Your task to perform on an android device: open a new tab in the chrome app Image 0: 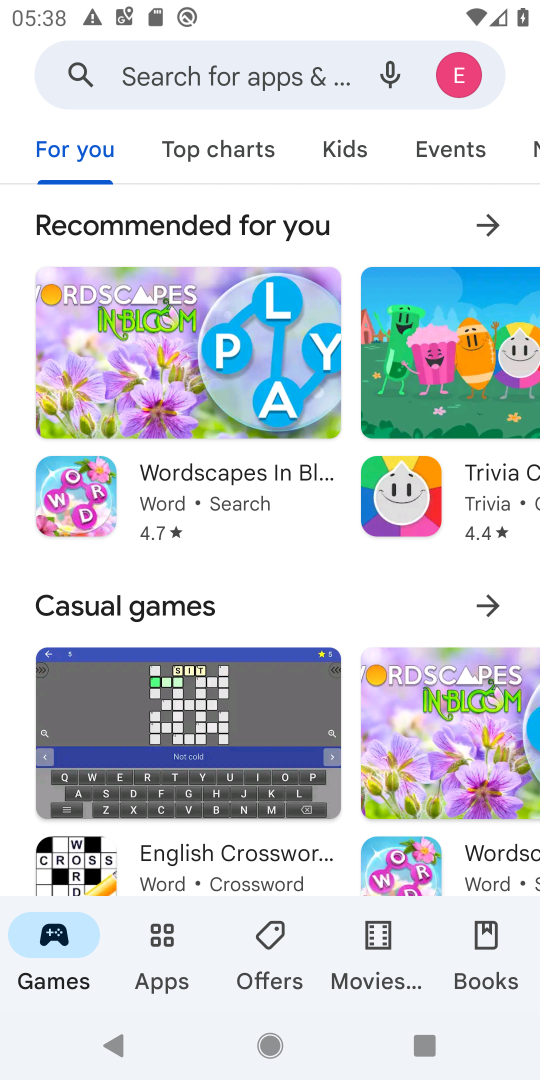
Step 0: press home button
Your task to perform on an android device: open a new tab in the chrome app Image 1: 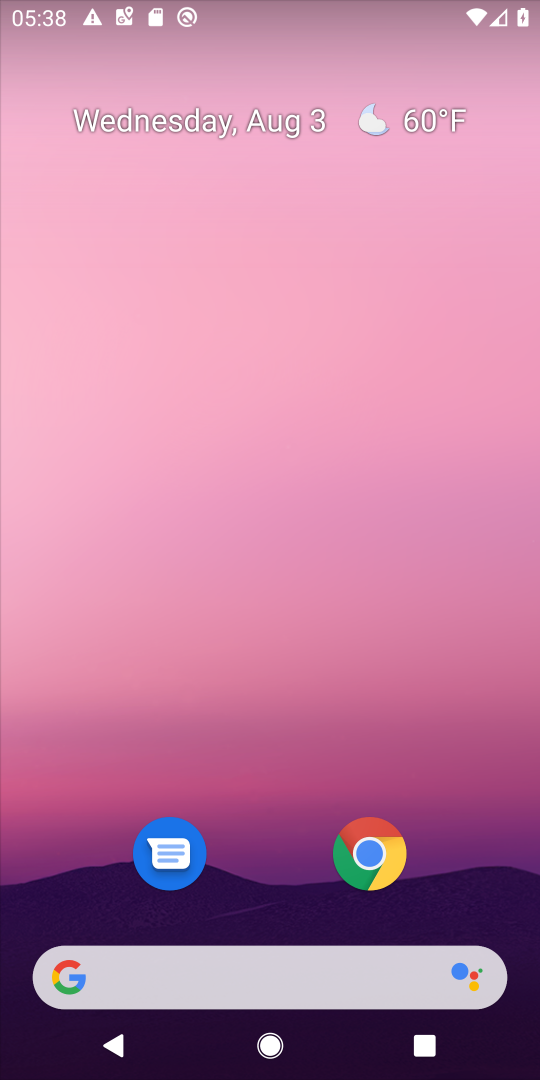
Step 1: click (382, 860)
Your task to perform on an android device: open a new tab in the chrome app Image 2: 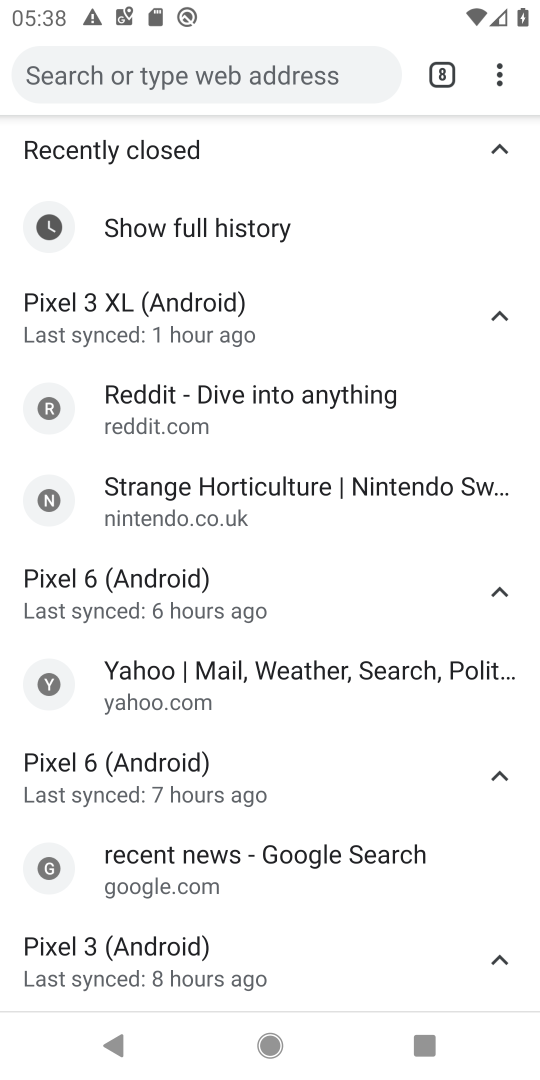
Step 2: click (499, 83)
Your task to perform on an android device: open a new tab in the chrome app Image 3: 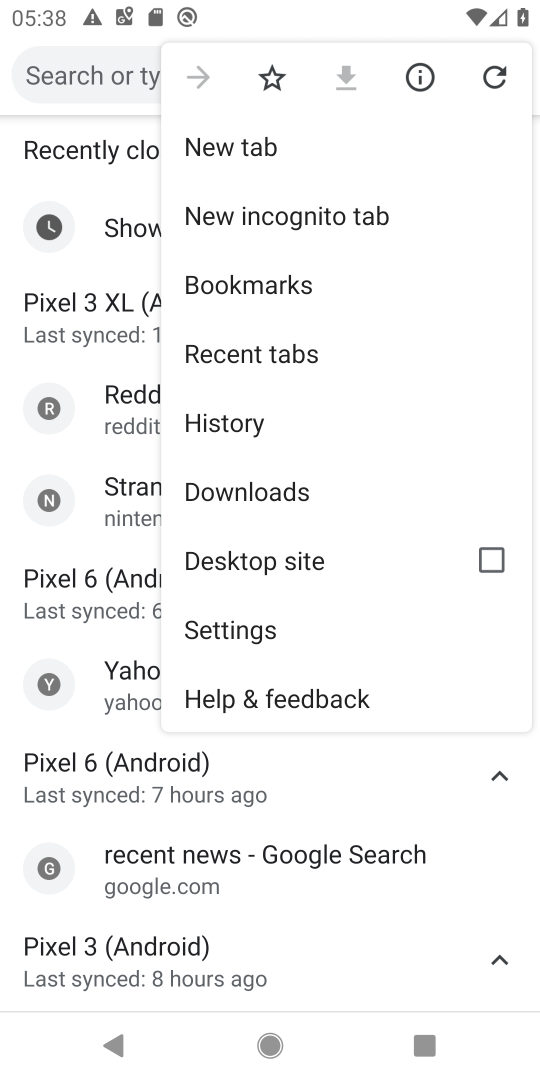
Step 3: click (213, 146)
Your task to perform on an android device: open a new tab in the chrome app Image 4: 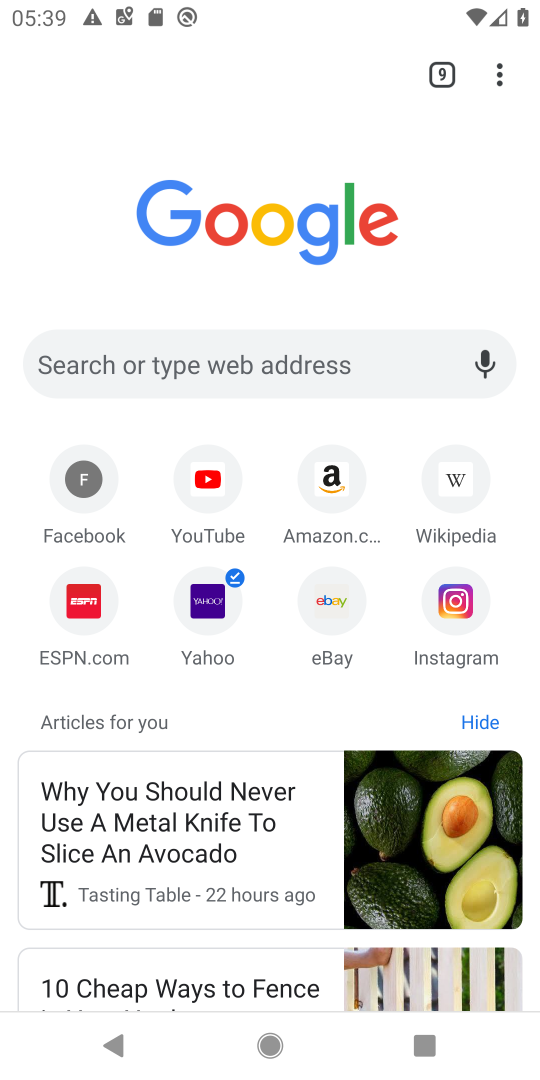
Step 4: task complete